Your task to perform on an android device: find which apps use the phone's location Image 0: 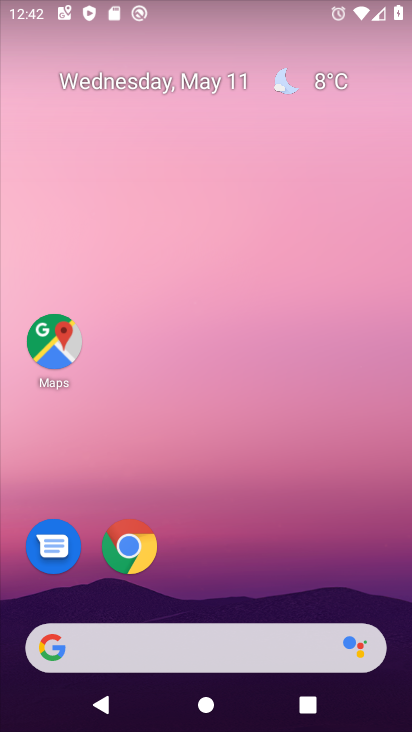
Step 0: drag from (238, 636) to (324, 212)
Your task to perform on an android device: find which apps use the phone's location Image 1: 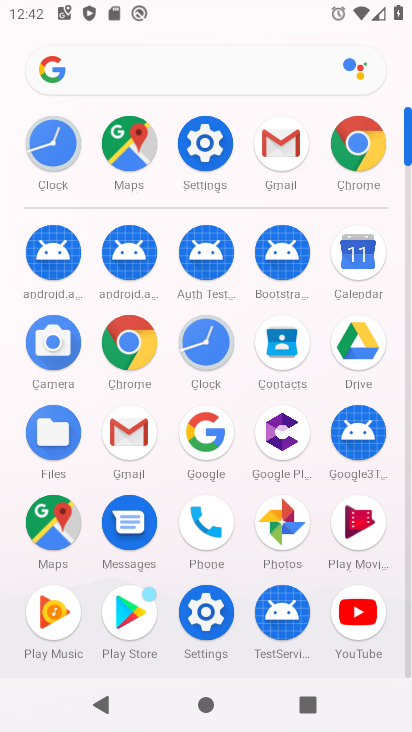
Step 1: click (206, 148)
Your task to perform on an android device: find which apps use the phone's location Image 2: 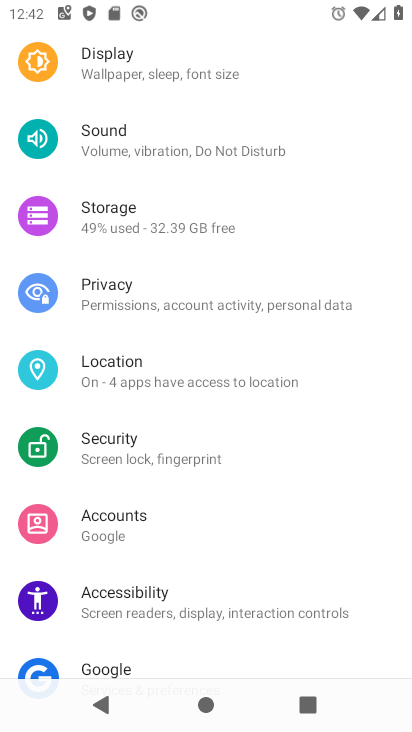
Step 2: click (139, 376)
Your task to perform on an android device: find which apps use the phone's location Image 3: 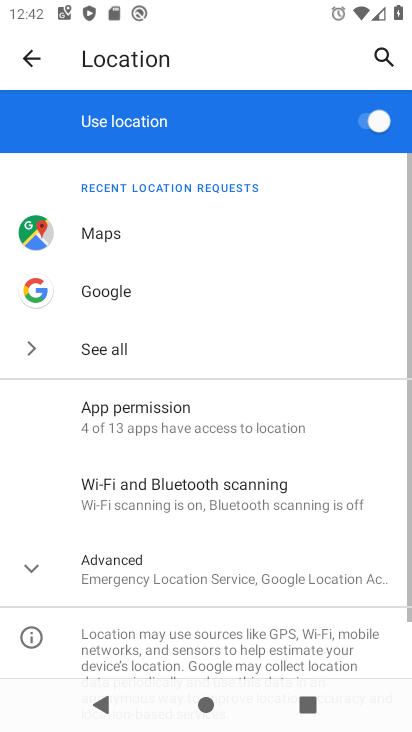
Step 3: click (136, 410)
Your task to perform on an android device: find which apps use the phone's location Image 4: 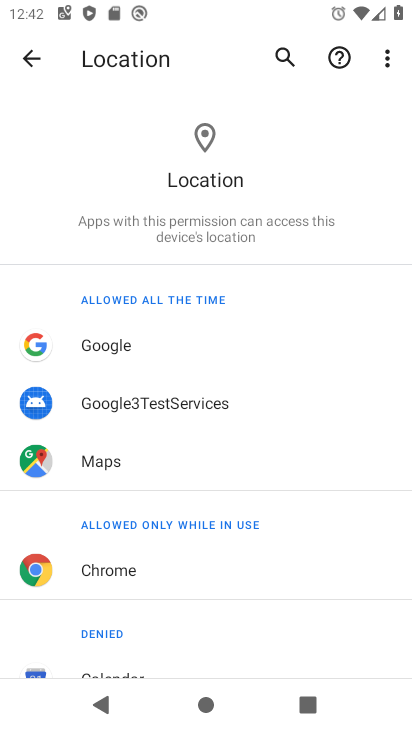
Step 4: drag from (197, 583) to (308, 62)
Your task to perform on an android device: find which apps use the phone's location Image 5: 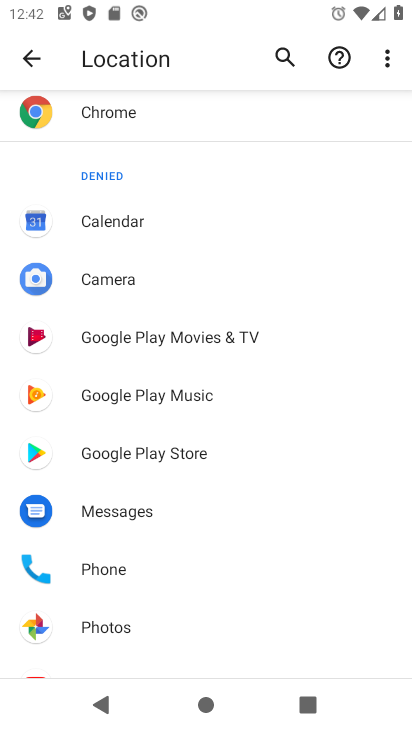
Step 5: click (133, 565)
Your task to perform on an android device: find which apps use the phone's location Image 6: 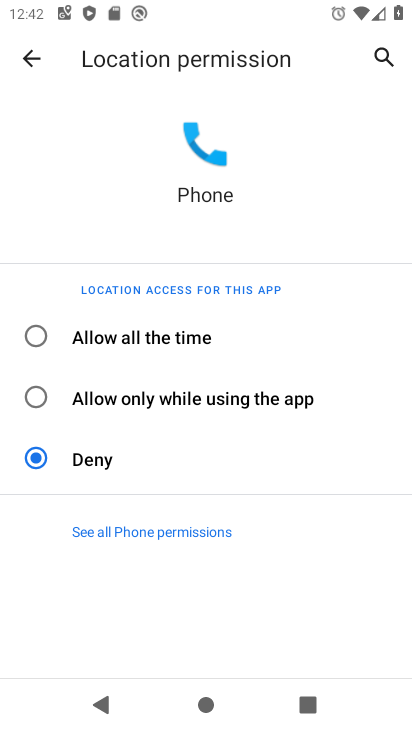
Step 6: task complete